Your task to perform on an android device: Search for Mexican restaurants on Maps Image 0: 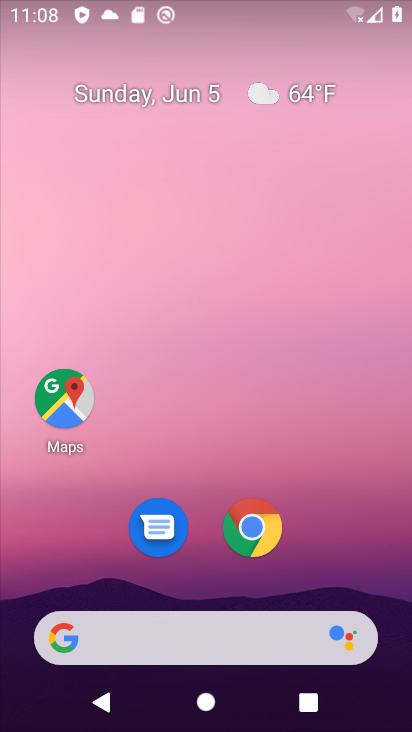
Step 0: click (62, 401)
Your task to perform on an android device: Search for Mexican restaurants on Maps Image 1: 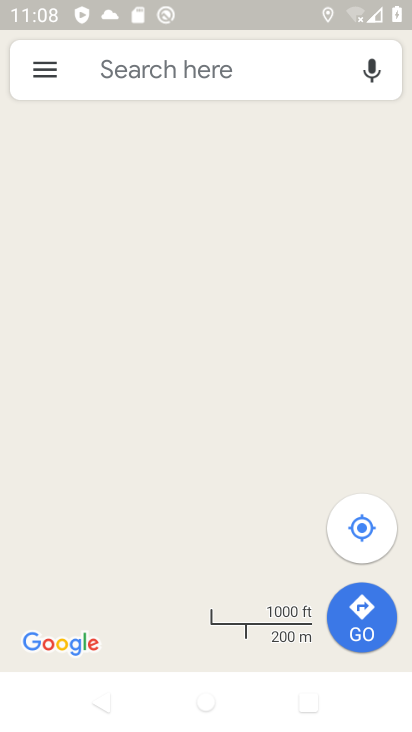
Step 1: click (104, 67)
Your task to perform on an android device: Search for Mexican restaurants on Maps Image 2: 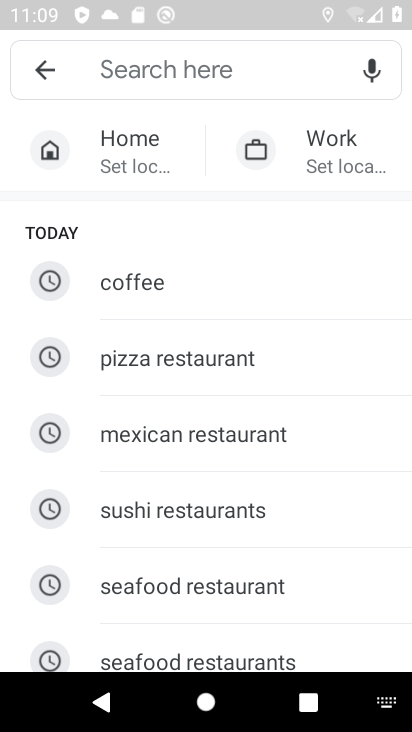
Step 2: type "Mexican restaurant"
Your task to perform on an android device: Search for Mexican restaurants on Maps Image 3: 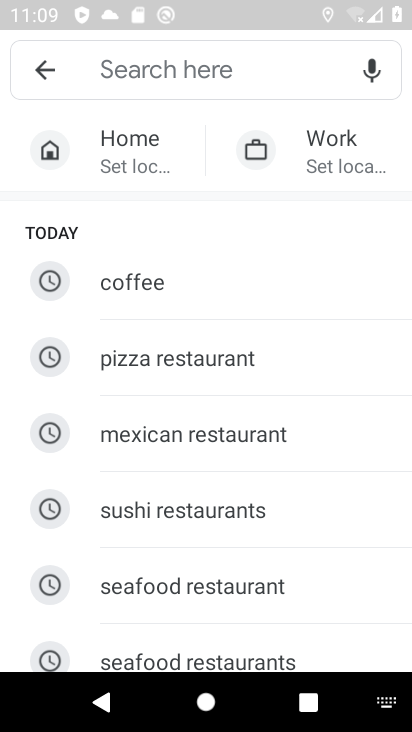
Step 3: click (234, 426)
Your task to perform on an android device: Search for Mexican restaurants on Maps Image 4: 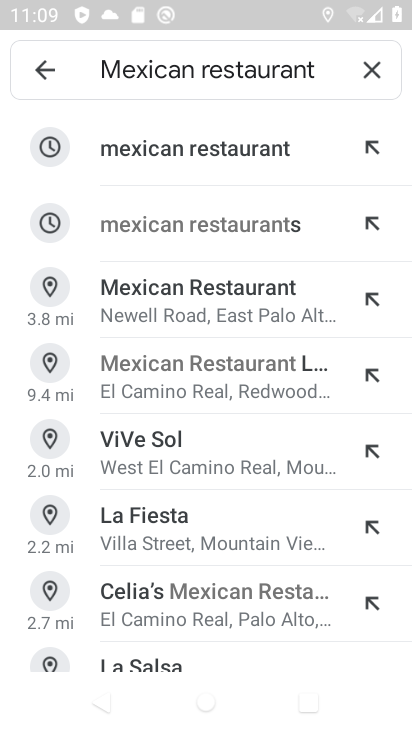
Step 4: click (223, 143)
Your task to perform on an android device: Search for Mexican restaurants on Maps Image 5: 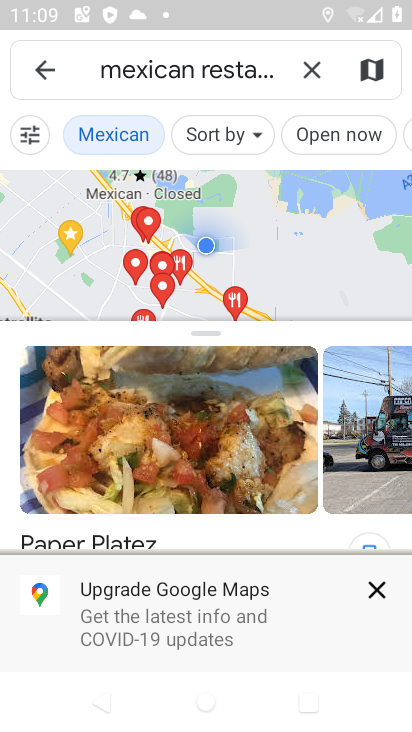
Step 5: click (370, 590)
Your task to perform on an android device: Search for Mexican restaurants on Maps Image 6: 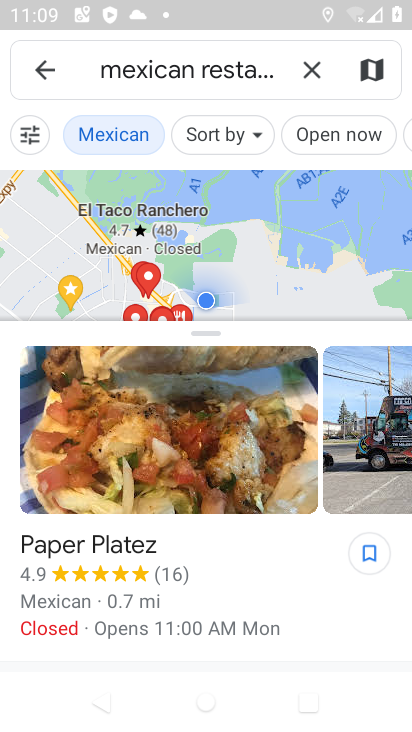
Step 6: task complete